Your task to perform on an android device: change the clock display to show seconds Image 0: 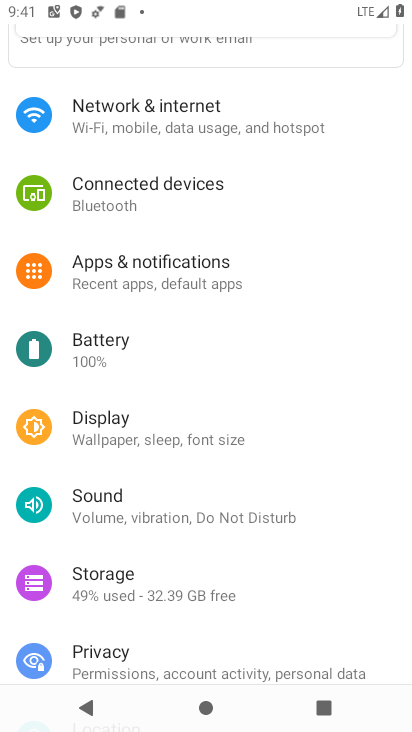
Step 0: press back button
Your task to perform on an android device: change the clock display to show seconds Image 1: 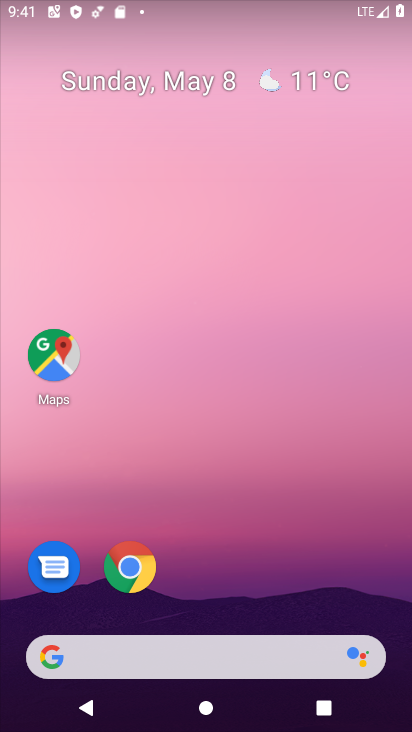
Step 1: drag from (216, 590) to (313, 37)
Your task to perform on an android device: change the clock display to show seconds Image 2: 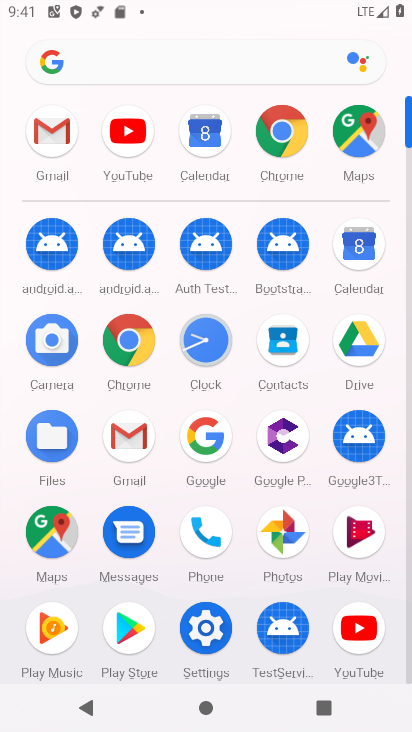
Step 2: click (209, 344)
Your task to perform on an android device: change the clock display to show seconds Image 3: 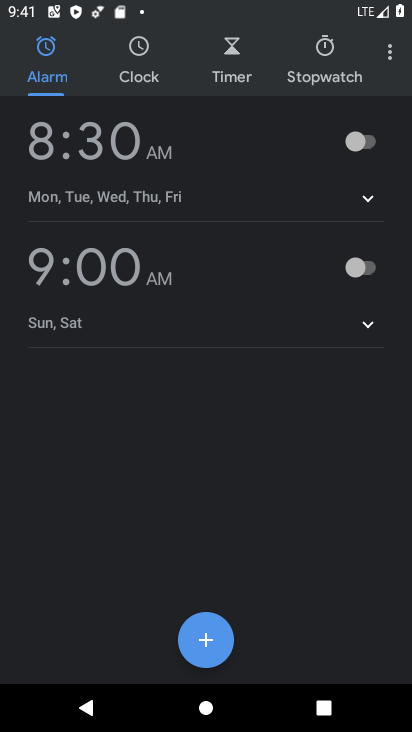
Step 3: click (393, 54)
Your task to perform on an android device: change the clock display to show seconds Image 4: 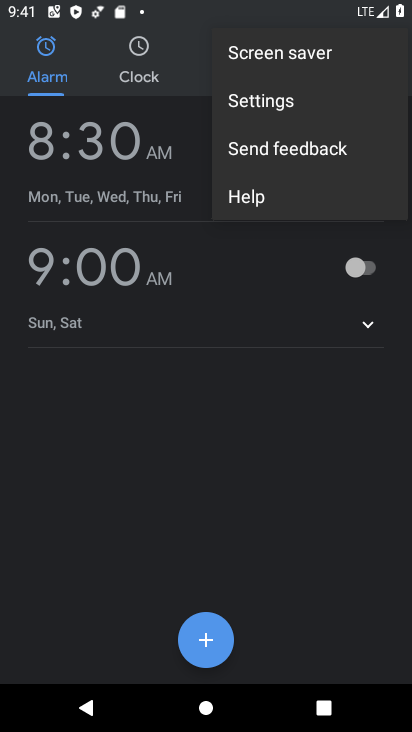
Step 4: click (184, 379)
Your task to perform on an android device: change the clock display to show seconds Image 5: 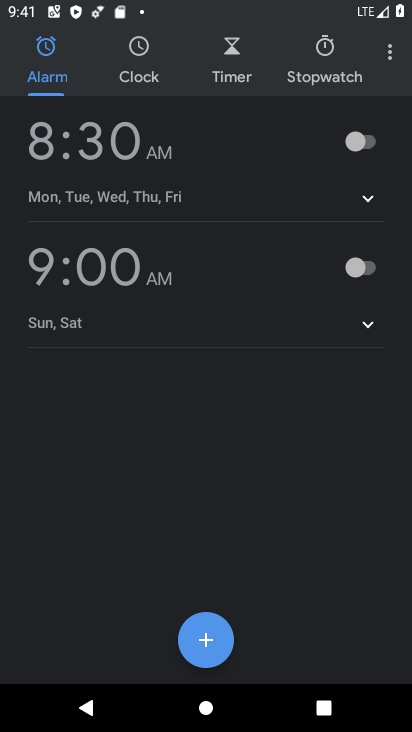
Step 5: click (383, 51)
Your task to perform on an android device: change the clock display to show seconds Image 6: 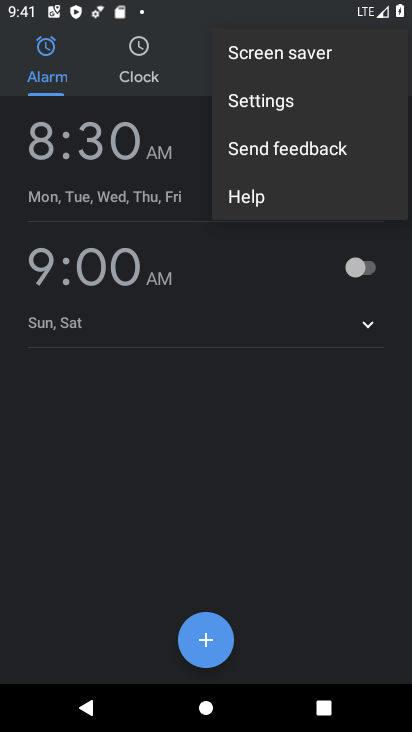
Step 6: click (292, 99)
Your task to perform on an android device: change the clock display to show seconds Image 7: 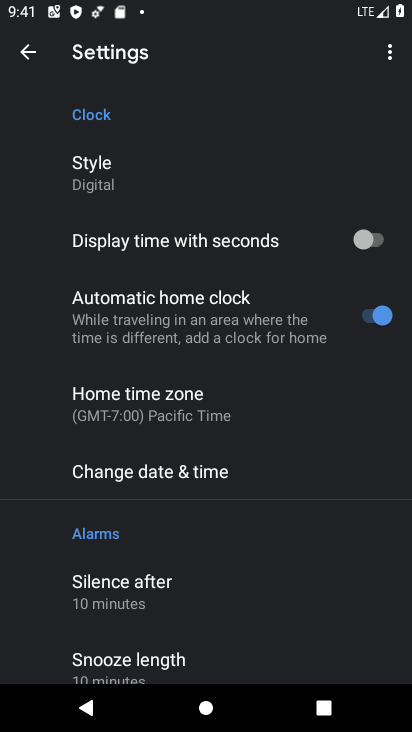
Step 7: click (147, 179)
Your task to perform on an android device: change the clock display to show seconds Image 8: 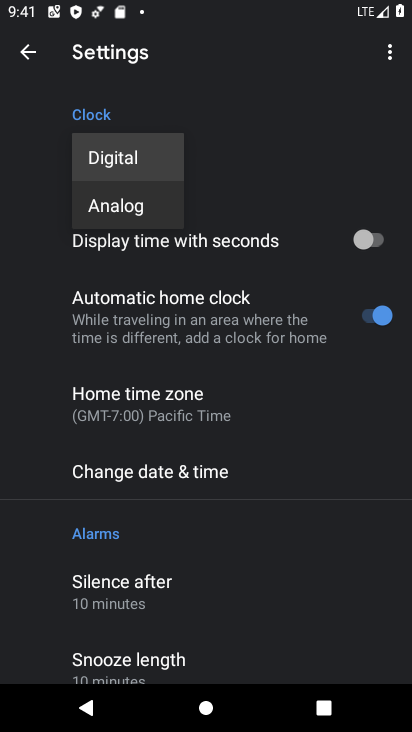
Step 8: click (133, 159)
Your task to perform on an android device: change the clock display to show seconds Image 9: 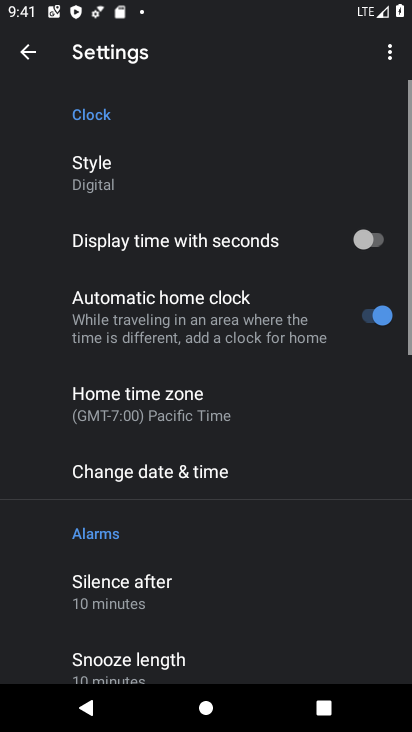
Step 9: click (372, 240)
Your task to perform on an android device: change the clock display to show seconds Image 10: 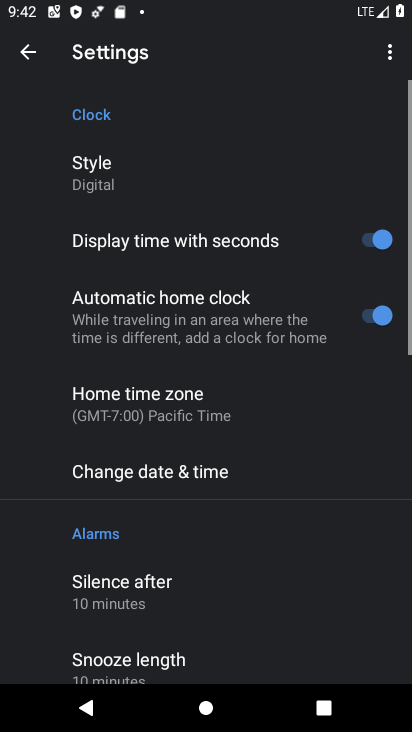
Step 10: task complete